Your task to perform on an android device: Open Amazon Image 0: 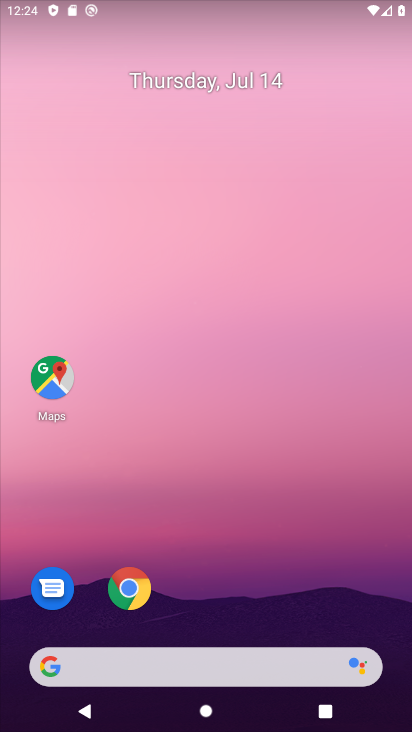
Step 0: click (121, 588)
Your task to perform on an android device: Open Amazon Image 1: 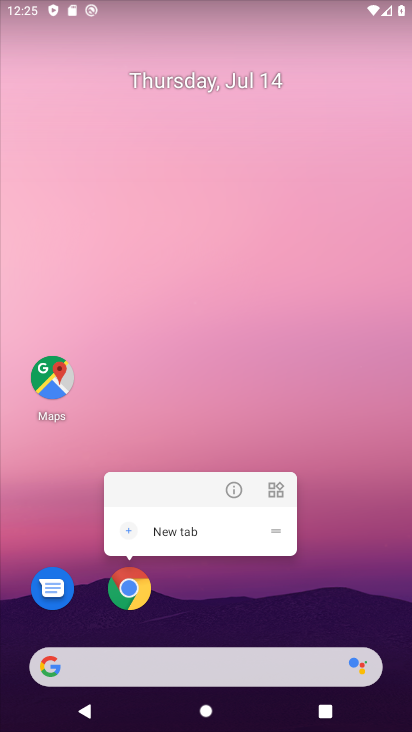
Step 1: click (121, 588)
Your task to perform on an android device: Open Amazon Image 2: 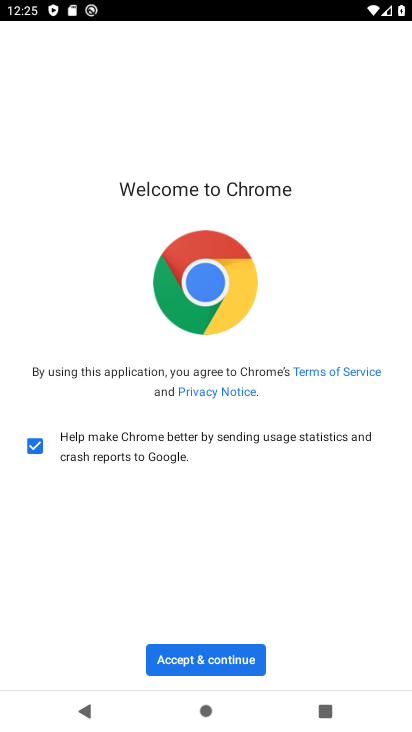
Step 2: click (187, 658)
Your task to perform on an android device: Open Amazon Image 3: 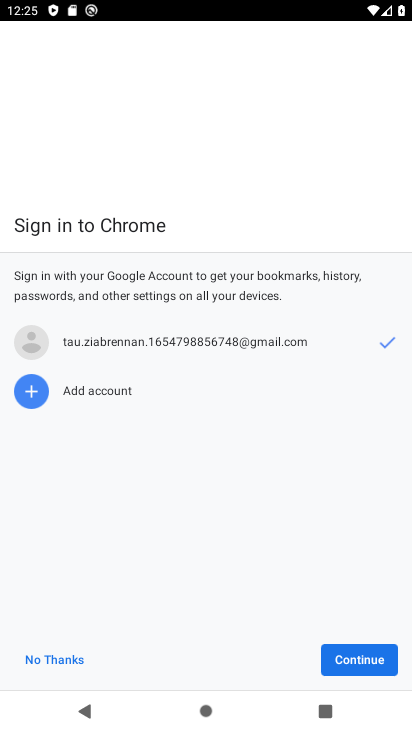
Step 3: click (353, 657)
Your task to perform on an android device: Open Amazon Image 4: 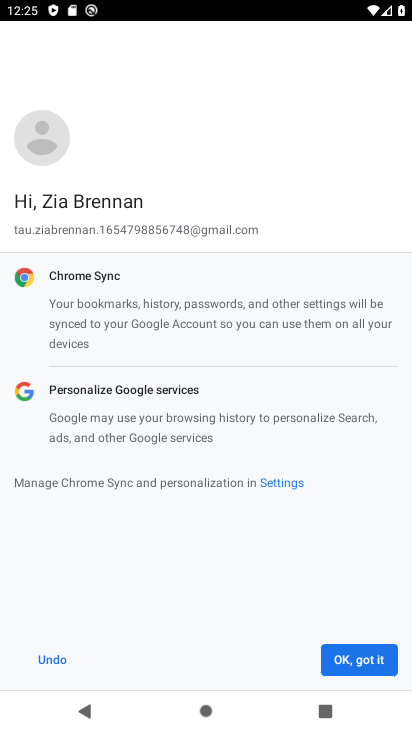
Step 4: click (340, 666)
Your task to perform on an android device: Open Amazon Image 5: 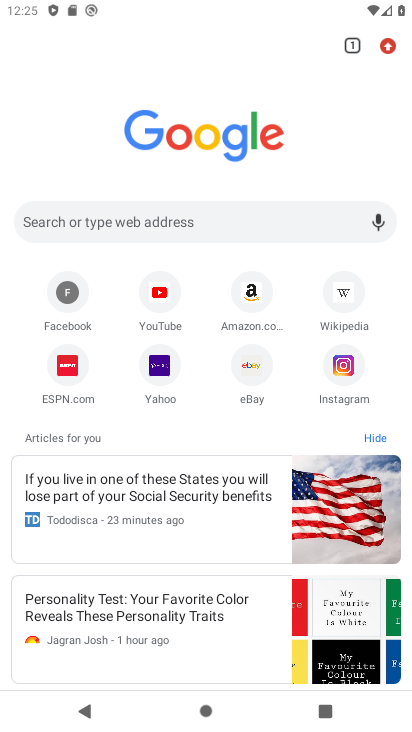
Step 5: click (250, 297)
Your task to perform on an android device: Open Amazon Image 6: 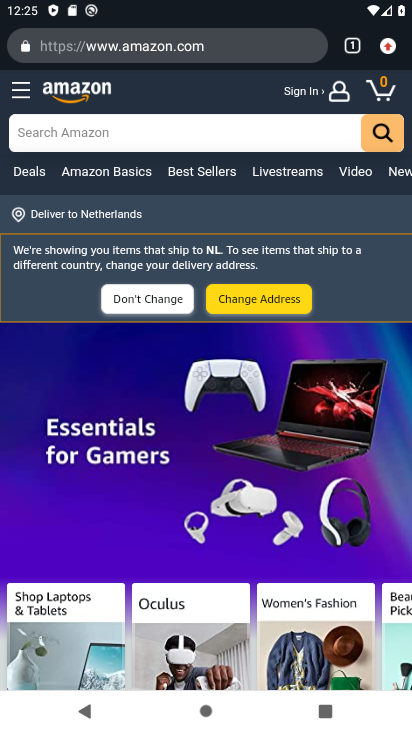
Step 6: task complete